Your task to perform on an android device: open chrome and create a bookmark for the current page Image 0: 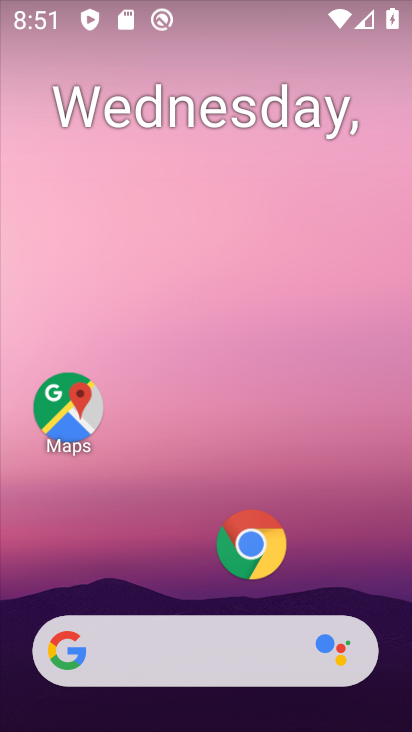
Step 0: click (286, 545)
Your task to perform on an android device: open chrome and create a bookmark for the current page Image 1: 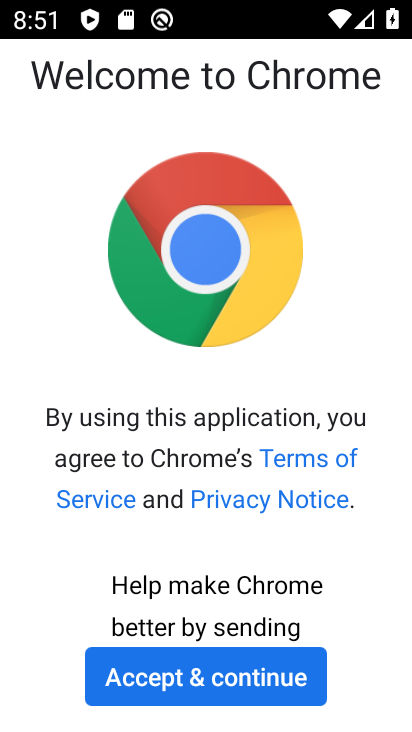
Step 1: click (218, 665)
Your task to perform on an android device: open chrome and create a bookmark for the current page Image 2: 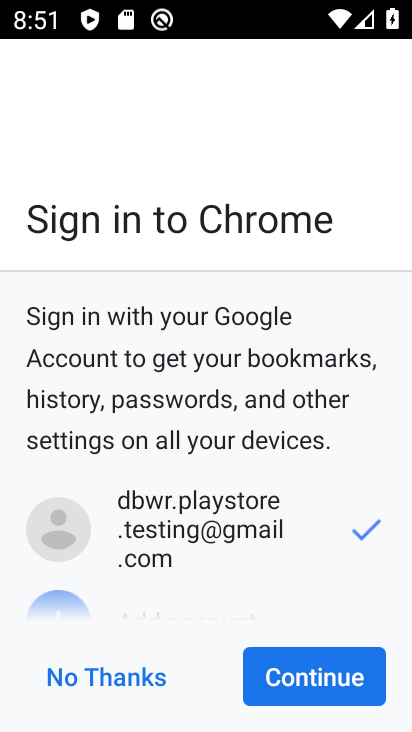
Step 2: click (321, 691)
Your task to perform on an android device: open chrome and create a bookmark for the current page Image 3: 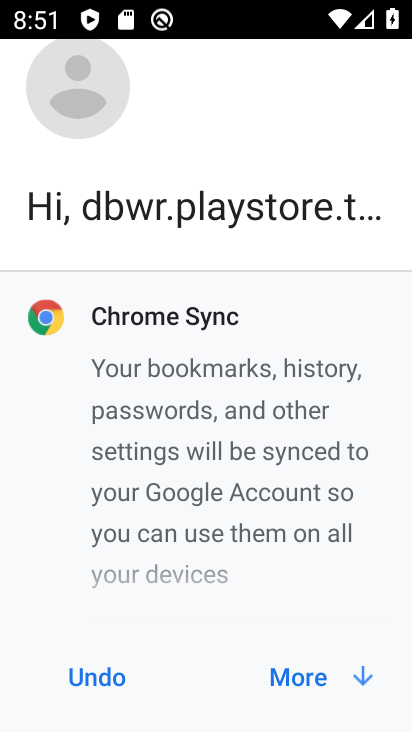
Step 3: click (324, 695)
Your task to perform on an android device: open chrome and create a bookmark for the current page Image 4: 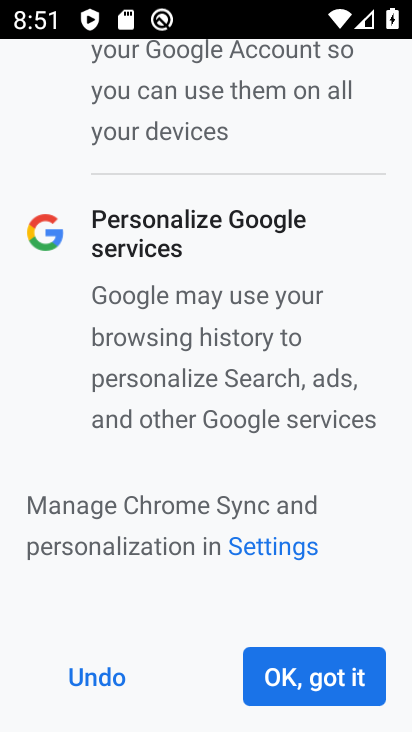
Step 4: click (324, 695)
Your task to perform on an android device: open chrome and create a bookmark for the current page Image 5: 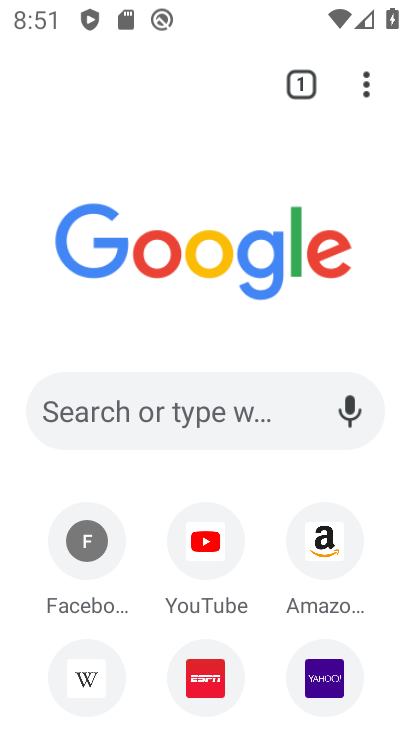
Step 5: click (371, 83)
Your task to perform on an android device: open chrome and create a bookmark for the current page Image 6: 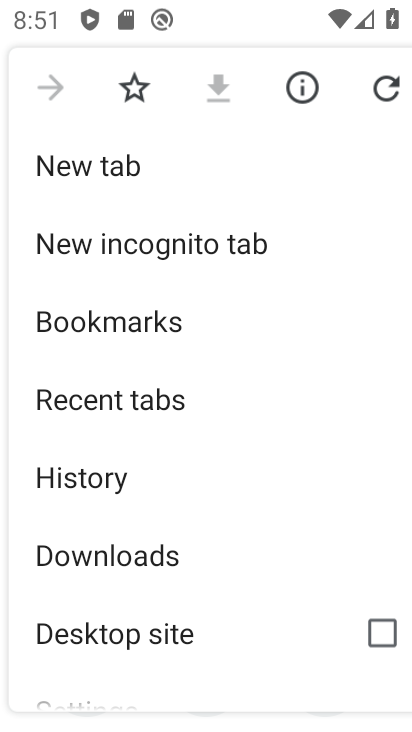
Step 6: click (146, 80)
Your task to perform on an android device: open chrome and create a bookmark for the current page Image 7: 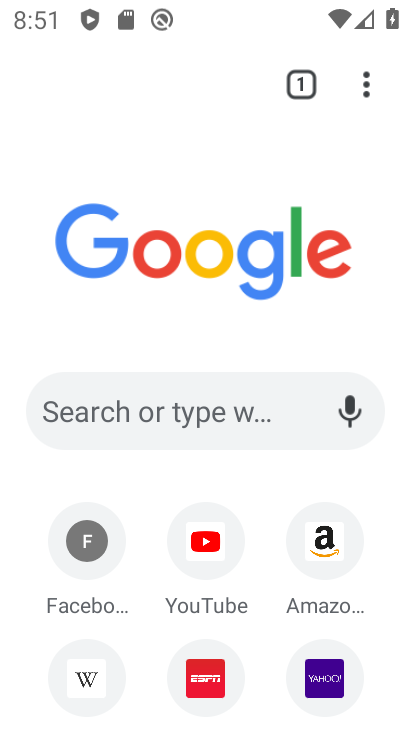
Step 7: task complete